Your task to perform on an android device: toggle translation in the chrome app Image 0: 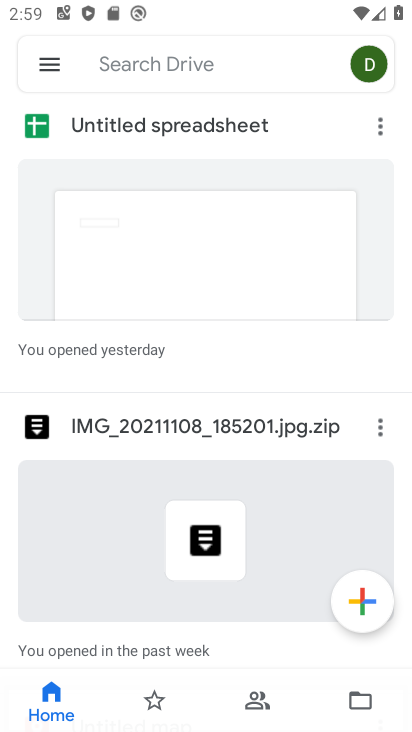
Step 0: press home button
Your task to perform on an android device: toggle translation in the chrome app Image 1: 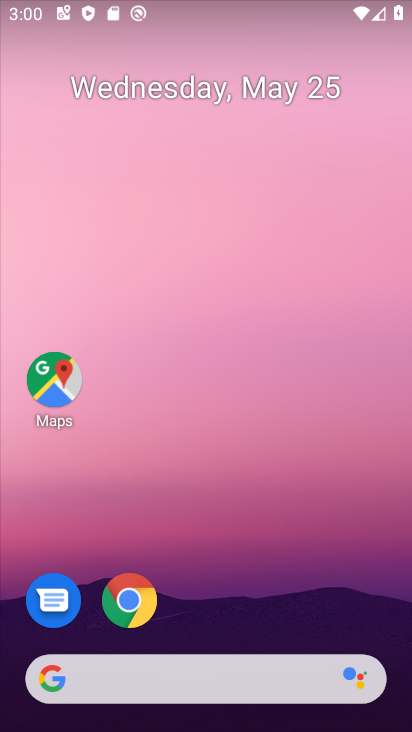
Step 1: click (132, 598)
Your task to perform on an android device: toggle translation in the chrome app Image 2: 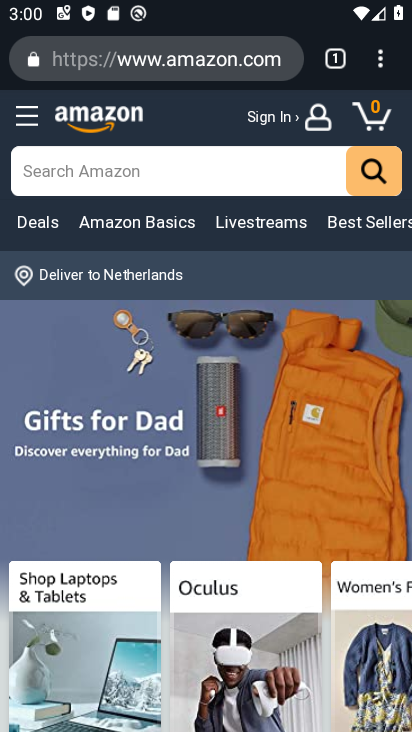
Step 2: click (371, 64)
Your task to perform on an android device: toggle translation in the chrome app Image 3: 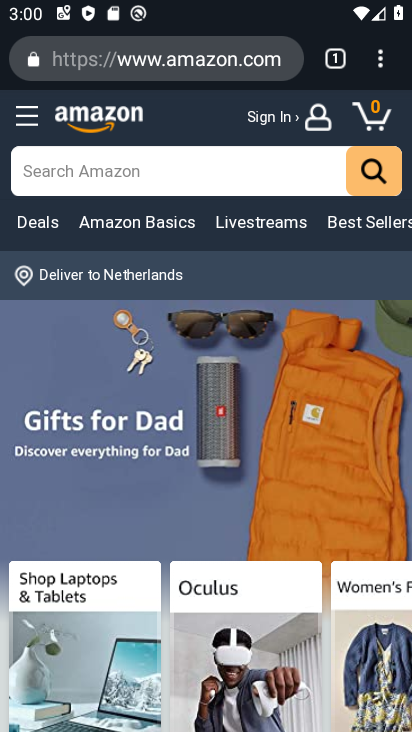
Step 3: click (383, 58)
Your task to perform on an android device: toggle translation in the chrome app Image 4: 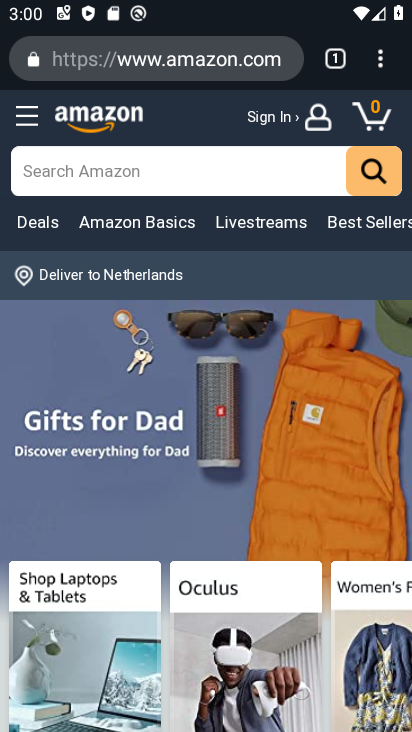
Step 4: click (398, 65)
Your task to perform on an android device: toggle translation in the chrome app Image 5: 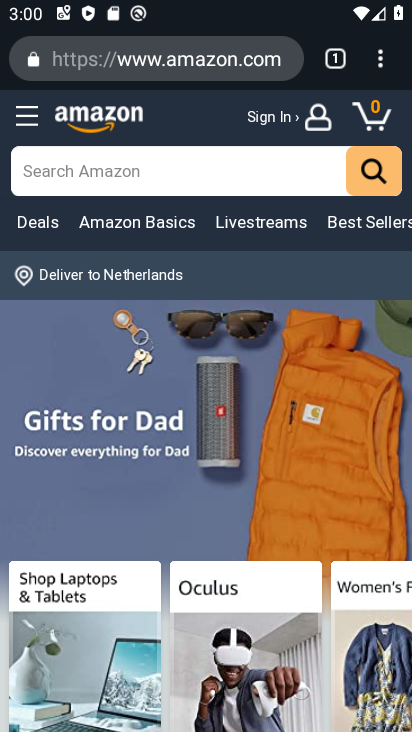
Step 5: click (393, 54)
Your task to perform on an android device: toggle translation in the chrome app Image 6: 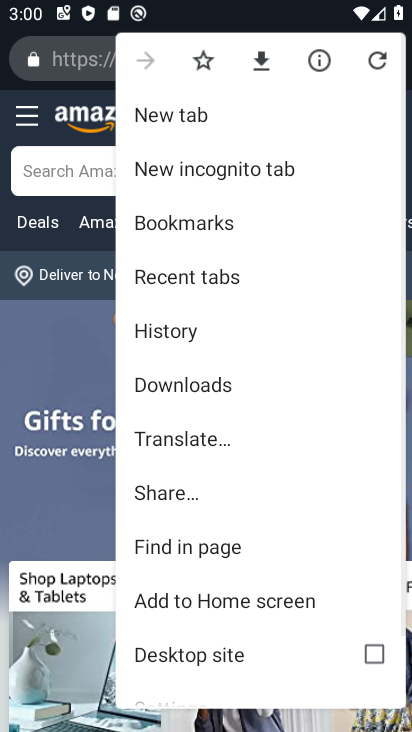
Step 6: drag from (207, 616) to (299, 190)
Your task to perform on an android device: toggle translation in the chrome app Image 7: 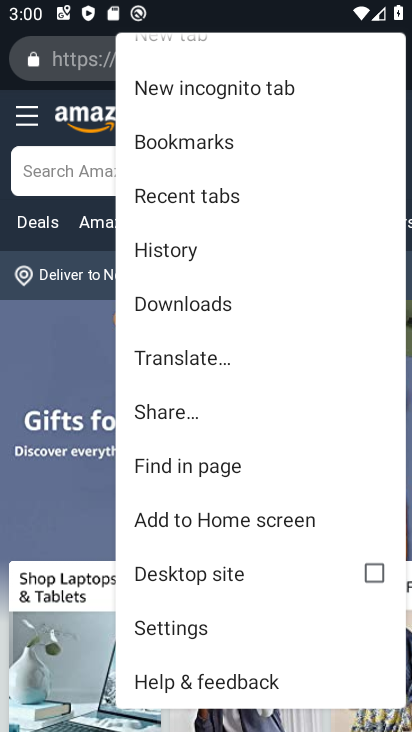
Step 7: click (169, 624)
Your task to perform on an android device: toggle translation in the chrome app Image 8: 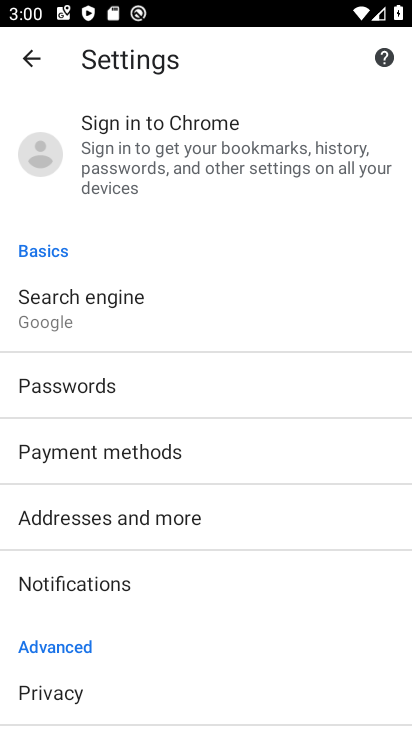
Step 8: drag from (21, 694) to (230, 263)
Your task to perform on an android device: toggle translation in the chrome app Image 9: 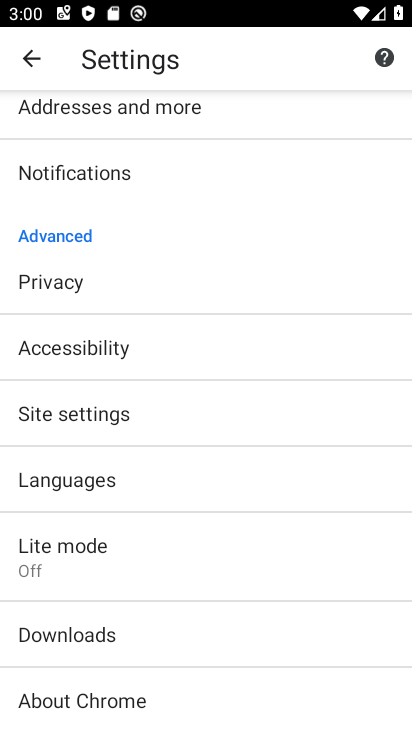
Step 9: click (70, 481)
Your task to perform on an android device: toggle translation in the chrome app Image 10: 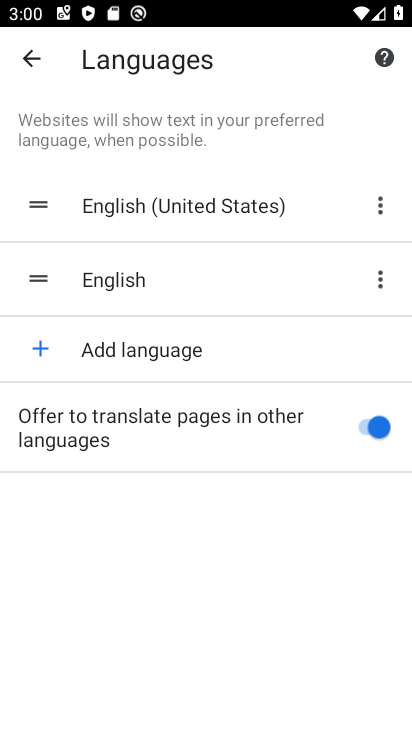
Step 10: click (389, 426)
Your task to perform on an android device: toggle translation in the chrome app Image 11: 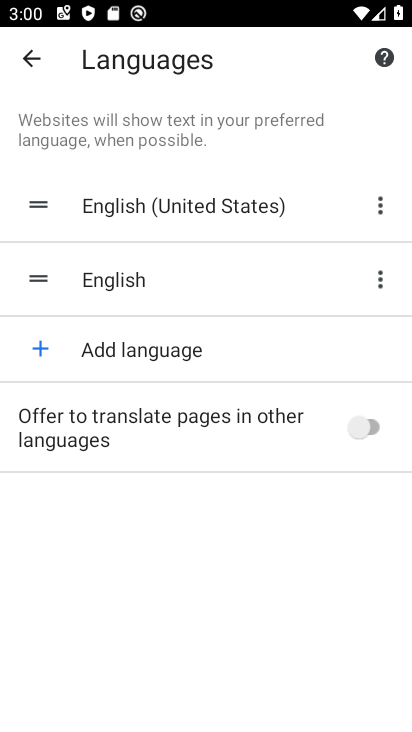
Step 11: task complete